Your task to perform on an android device: Show me recent news Image 0: 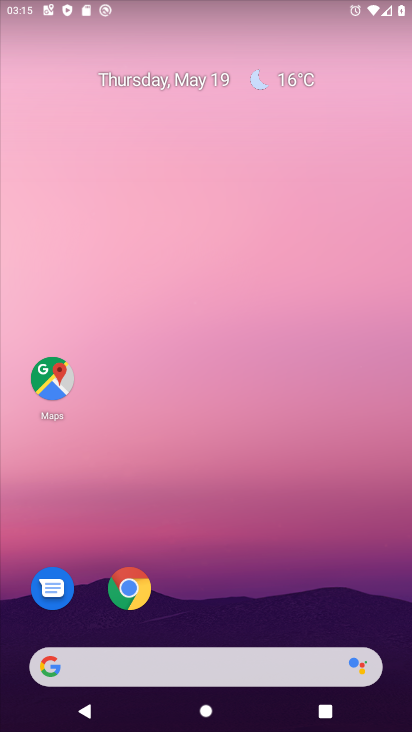
Step 0: drag from (228, 625) to (252, 122)
Your task to perform on an android device: Show me recent news Image 1: 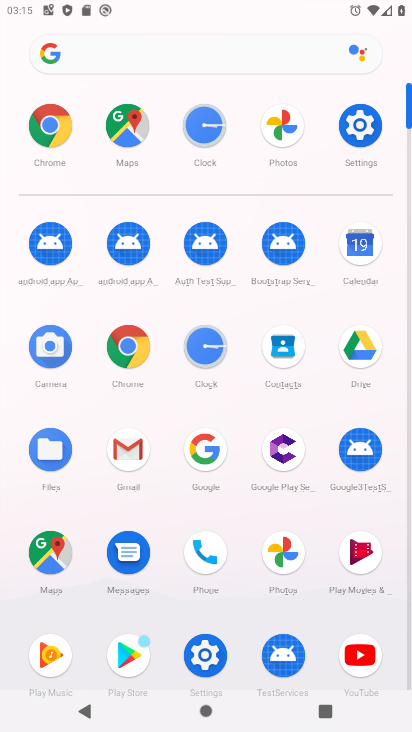
Step 1: click (210, 444)
Your task to perform on an android device: Show me recent news Image 2: 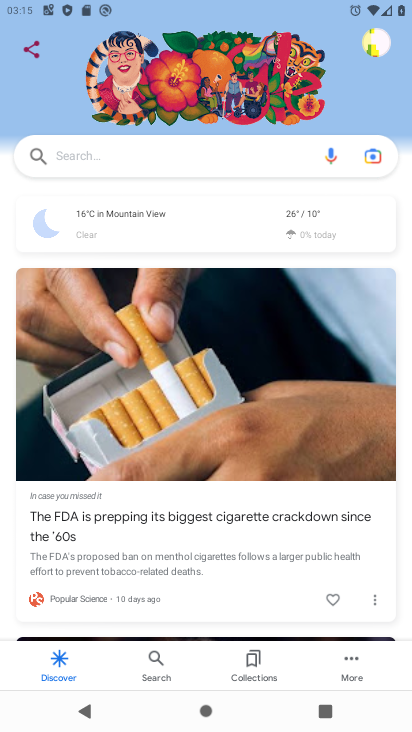
Step 2: click (157, 169)
Your task to perform on an android device: Show me recent news Image 3: 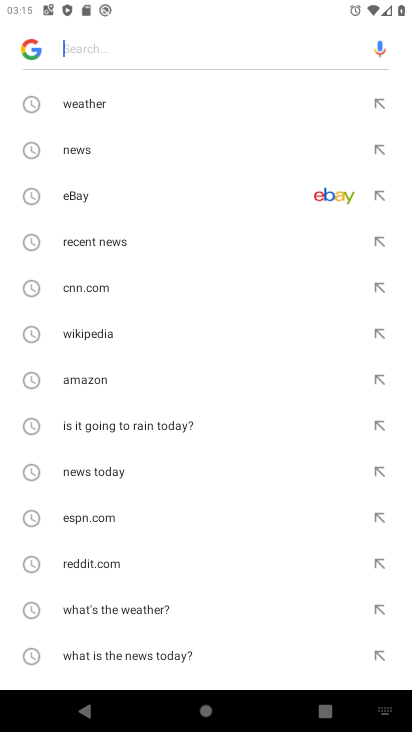
Step 3: click (121, 234)
Your task to perform on an android device: Show me recent news Image 4: 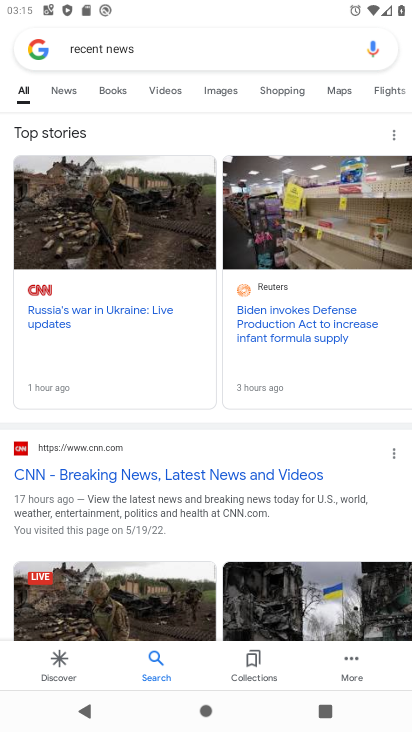
Step 4: task complete